Your task to perform on an android device: change the clock display to digital Image 0: 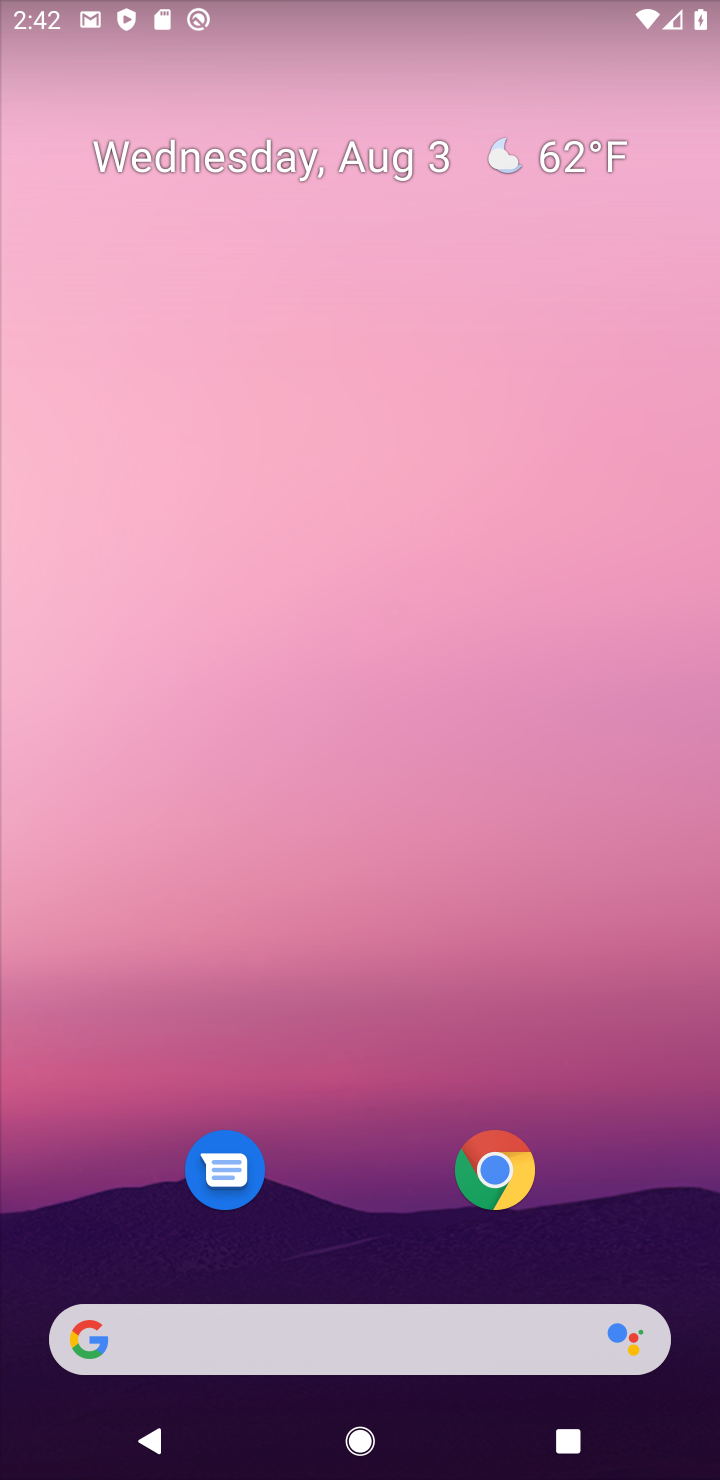
Step 0: drag from (397, 485) to (437, 140)
Your task to perform on an android device: change the clock display to digital Image 1: 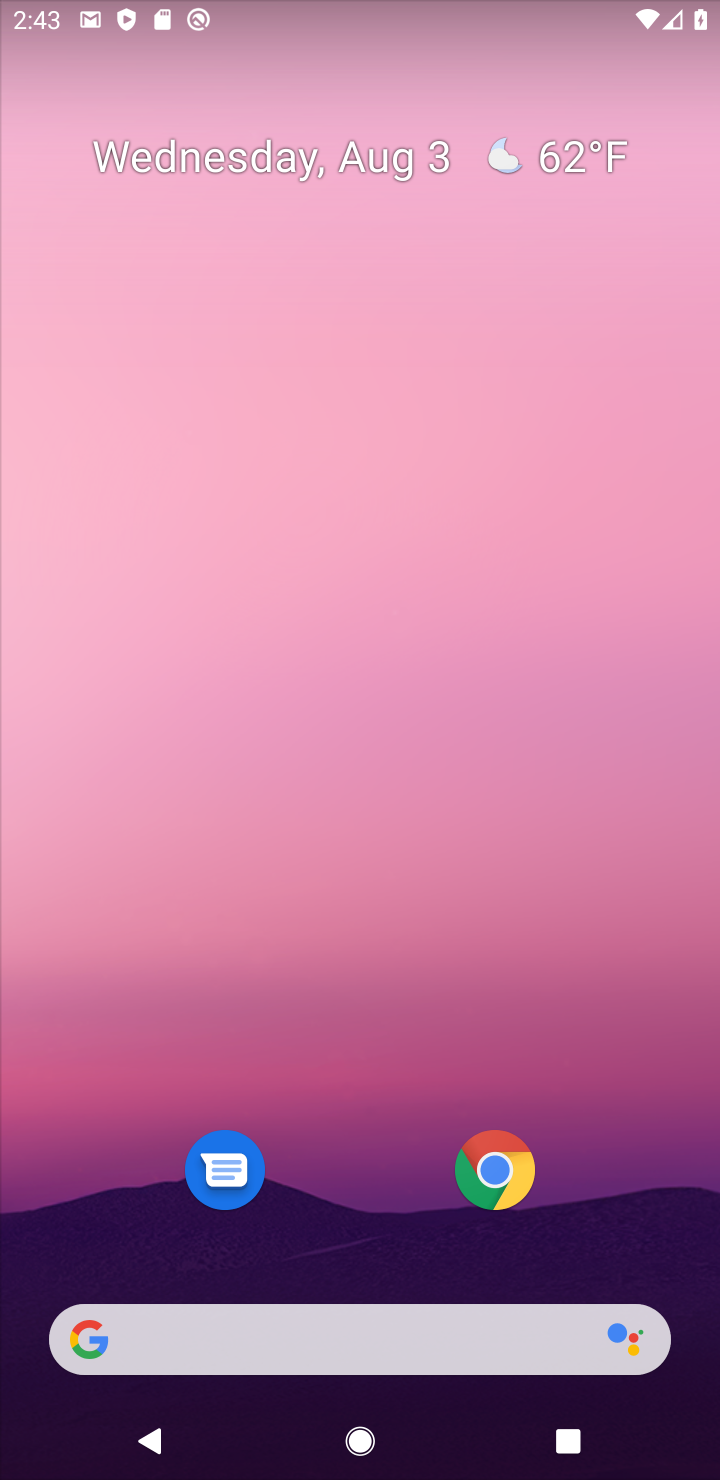
Step 1: drag from (320, 1191) to (350, 222)
Your task to perform on an android device: change the clock display to digital Image 2: 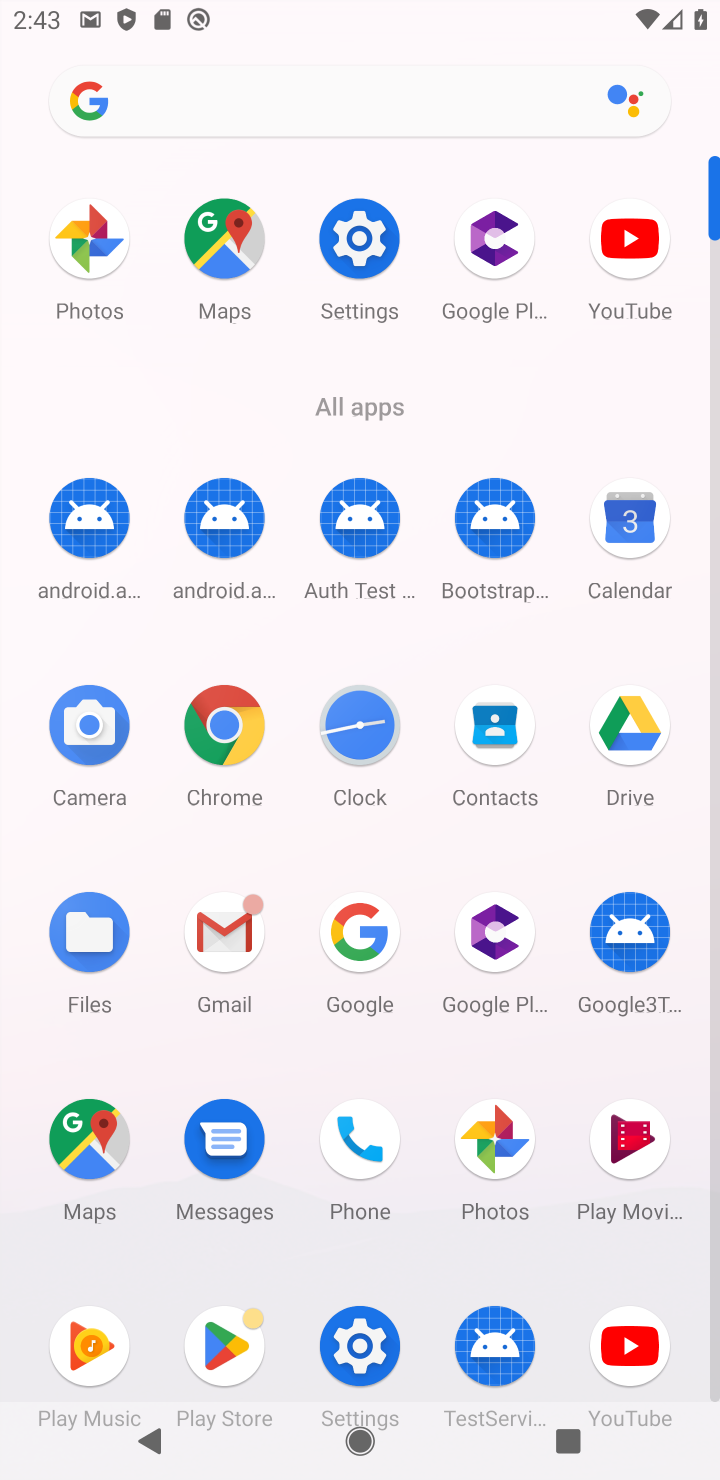
Step 2: click (347, 754)
Your task to perform on an android device: change the clock display to digital Image 3: 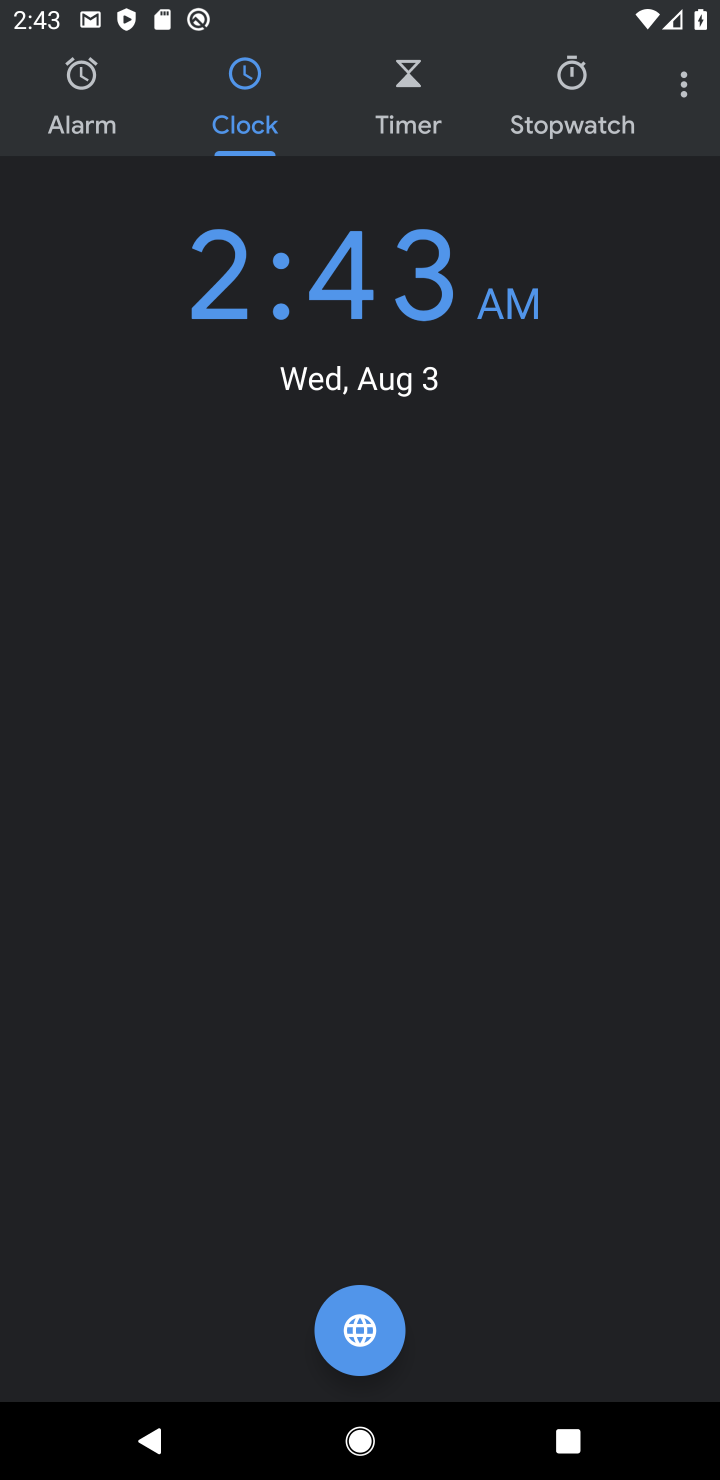
Step 3: click (685, 93)
Your task to perform on an android device: change the clock display to digital Image 4: 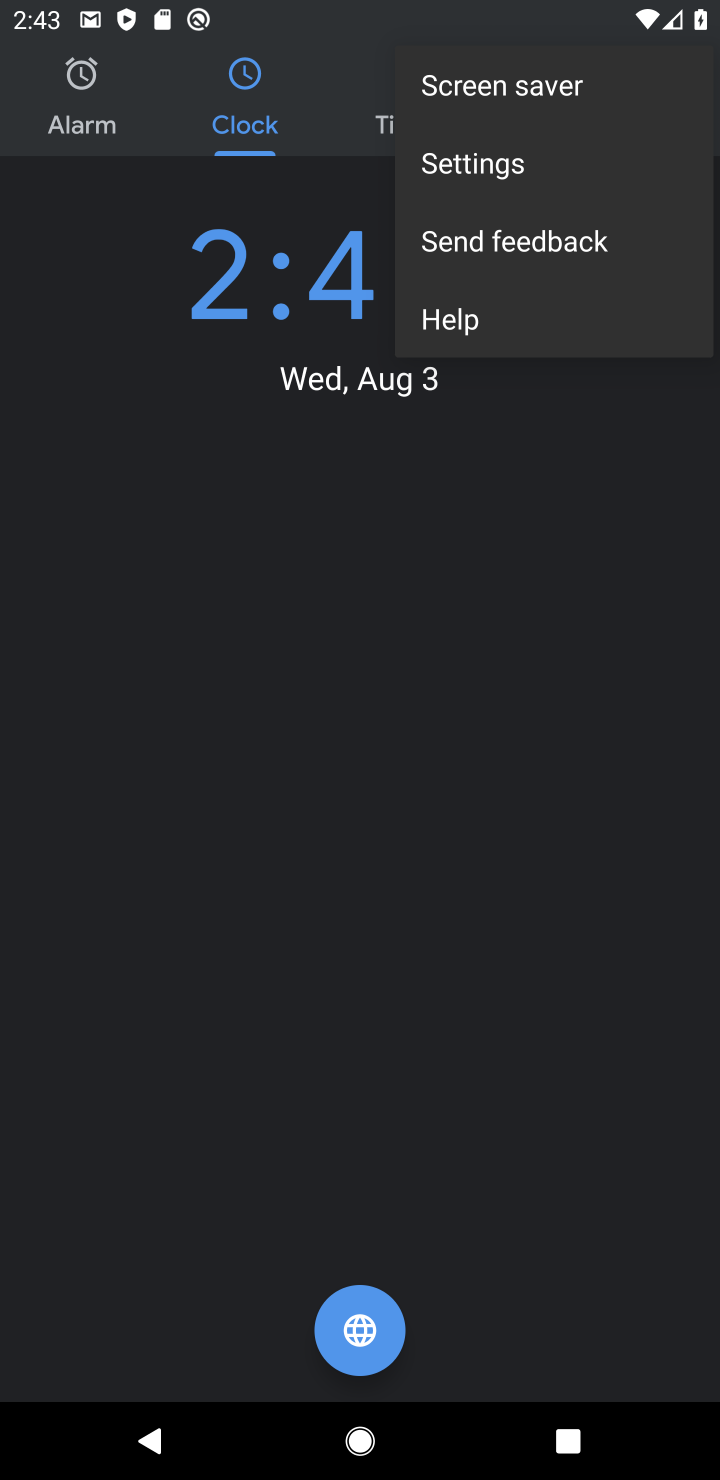
Step 4: click (512, 168)
Your task to perform on an android device: change the clock display to digital Image 5: 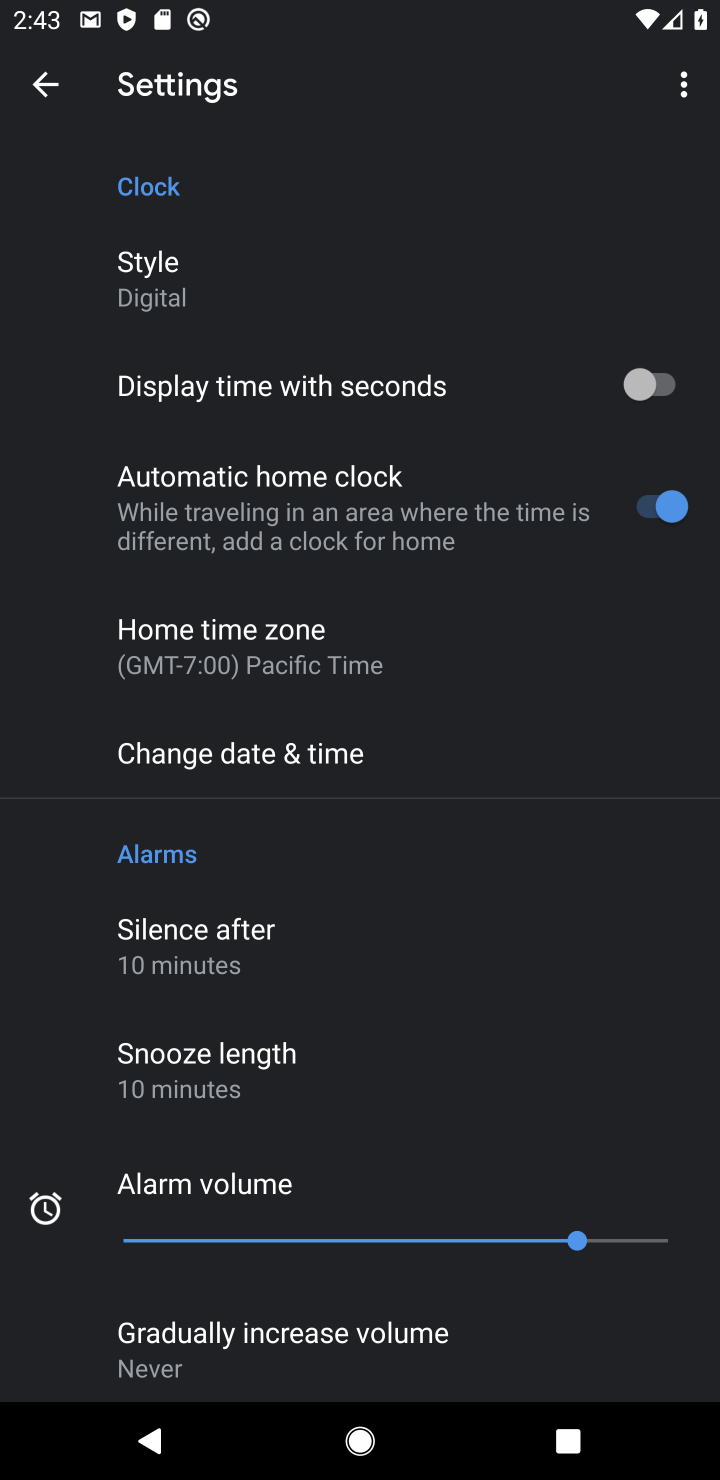
Step 5: task complete